Your task to perform on an android device: open app "Duolingo: language lessons" (install if not already installed) and enter user name: "omens@gmail.com" and password: "casks" Image 0: 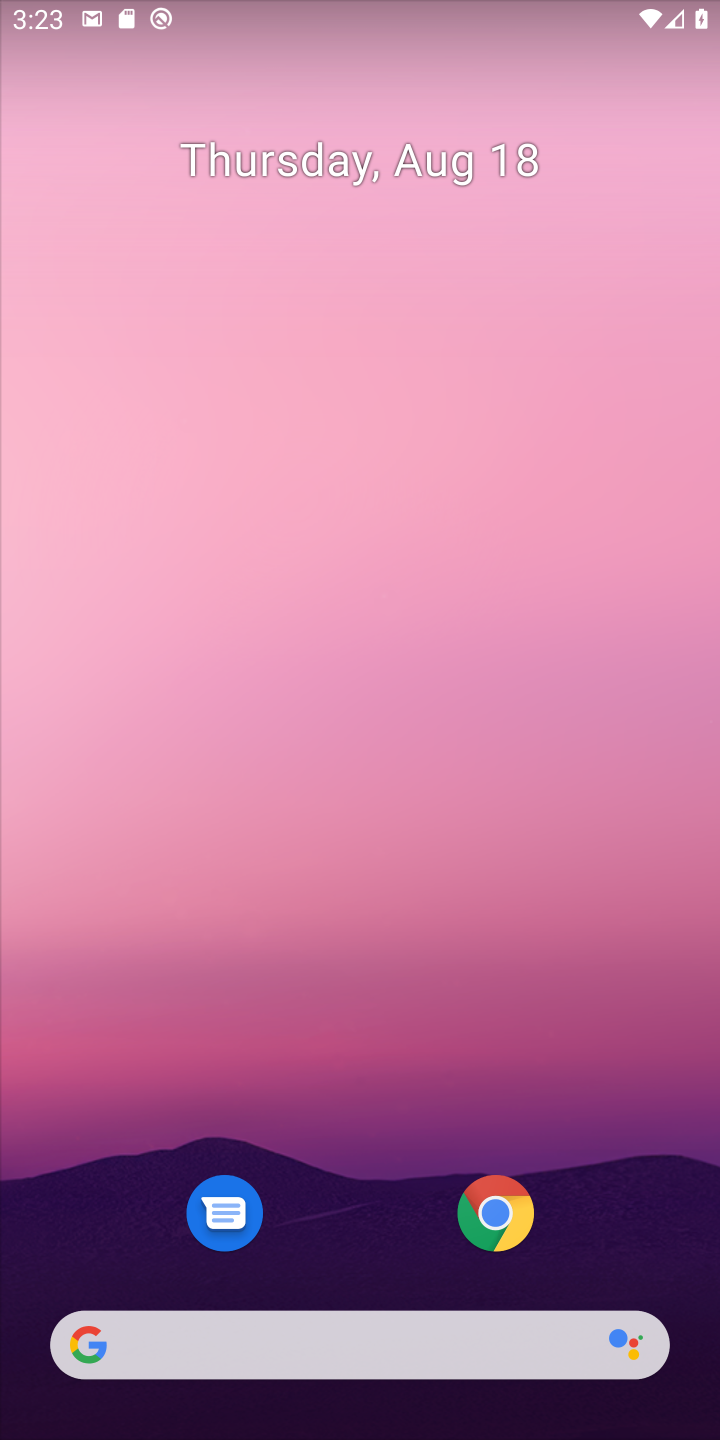
Step 0: drag from (648, 1218) to (606, 43)
Your task to perform on an android device: open app "Duolingo: language lessons" (install if not already installed) and enter user name: "omens@gmail.com" and password: "casks" Image 1: 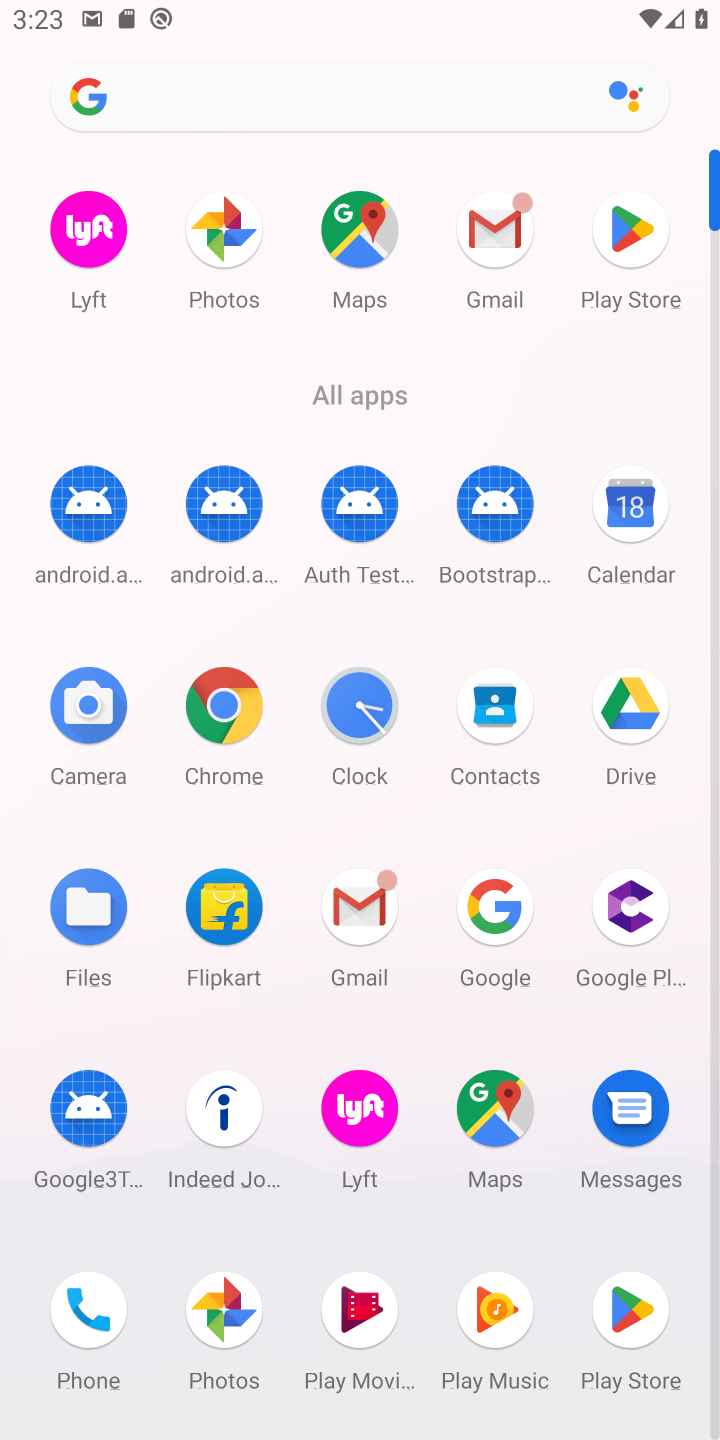
Step 1: click (634, 1308)
Your task to perform on an android device: open app "Duolingo: language lessons" (install if not already installed) and enter user name: "omens@gmail.com" and password: "casks" Image 2: 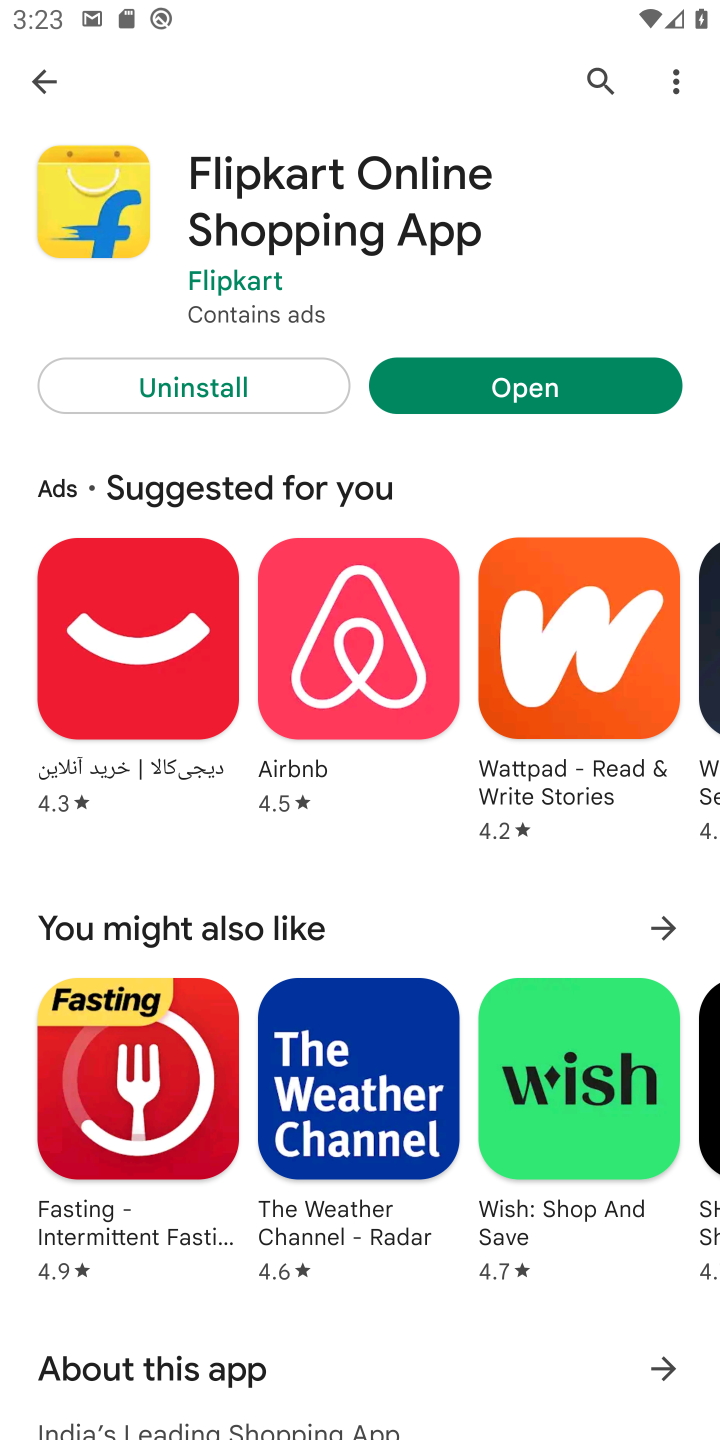
Step 2: click (596, 62)
Your task to perform on an android device: open app "Duolingo: language lessons" (install if not already installed) and enter user name: "omens@gmail.com" and password: "casks" Image 3: 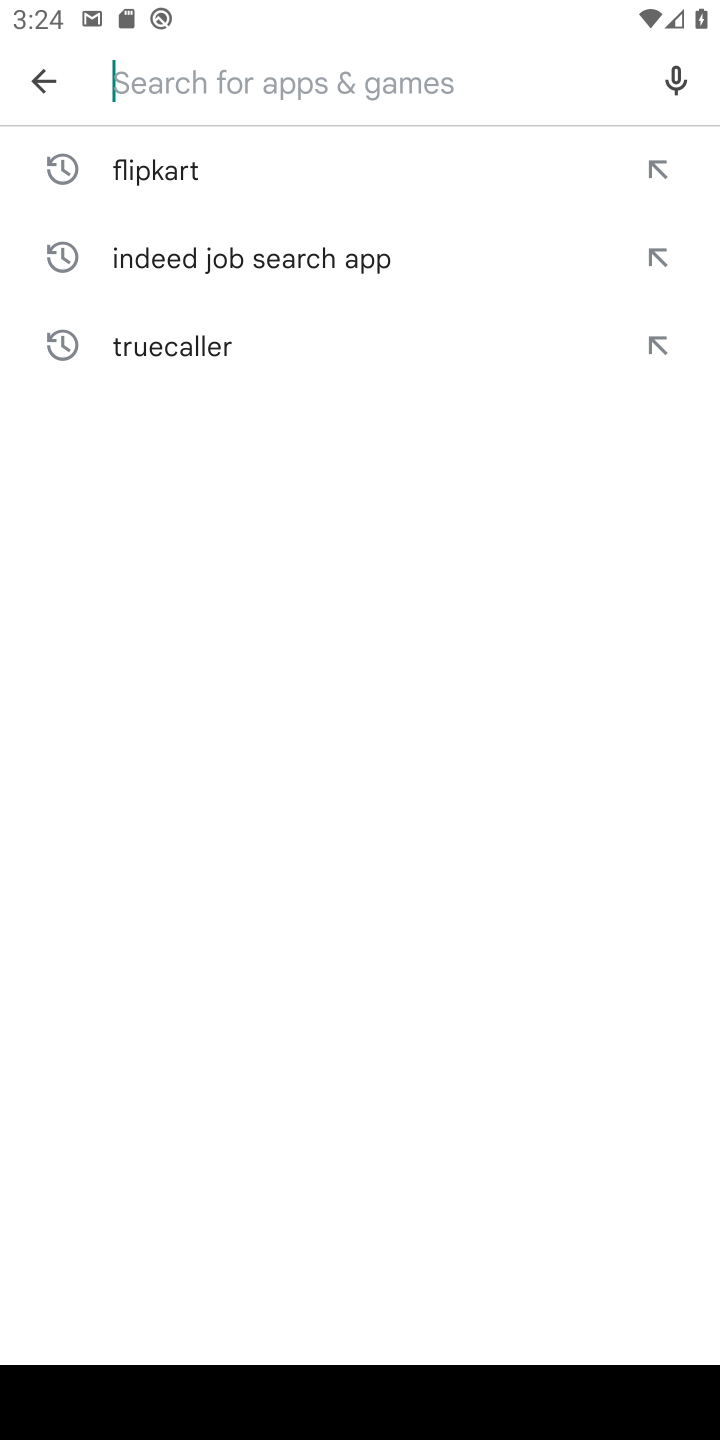
Step 3: type "Duolingo"
Your task to perform on an android device: open app "Duolingo: language lessons" (install if not already installed) and enter user name: "omens@gmail.com" and password: "casks" Image 4: 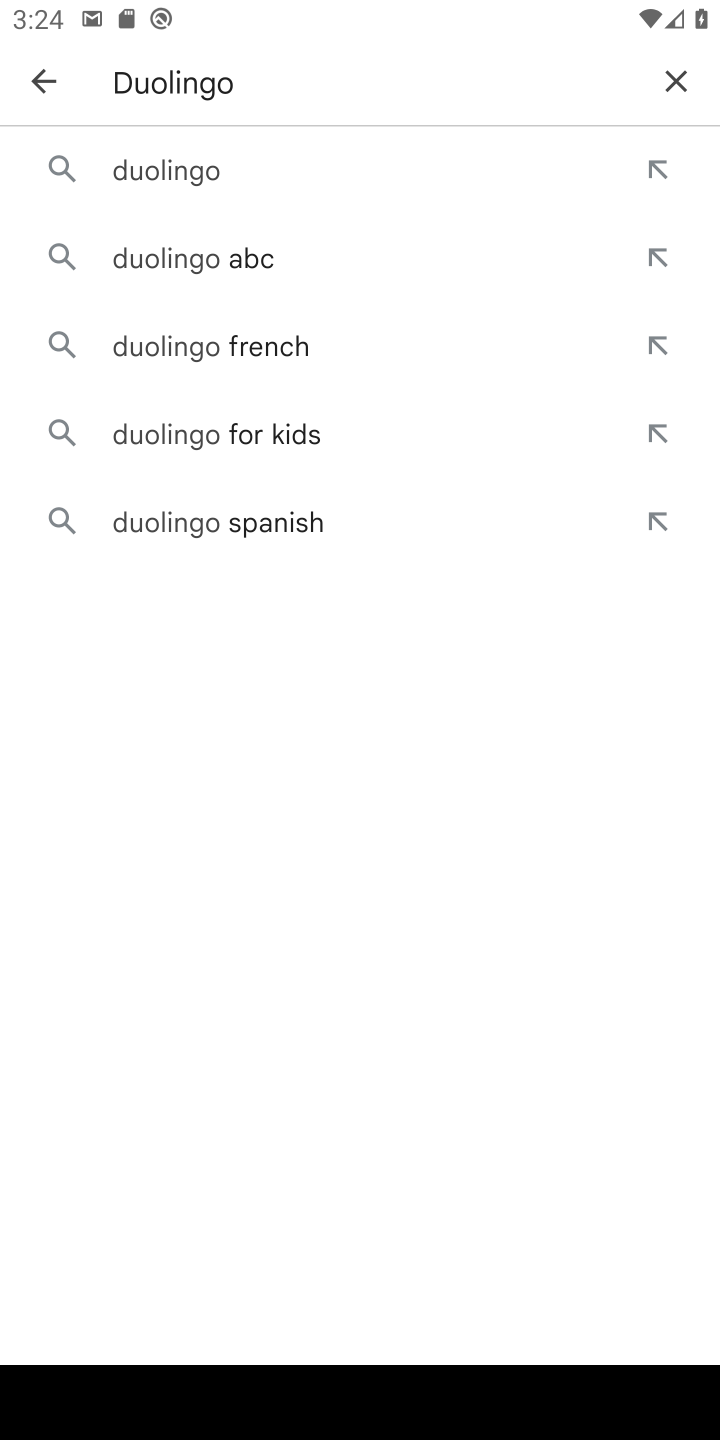
Step 4: click (199, 165)
Your task to perform on an android device: open app "Duolingo: language lessons" (install if not already installed) and enter user name: "omens@gmail.com" and password: "casks" Image 5: 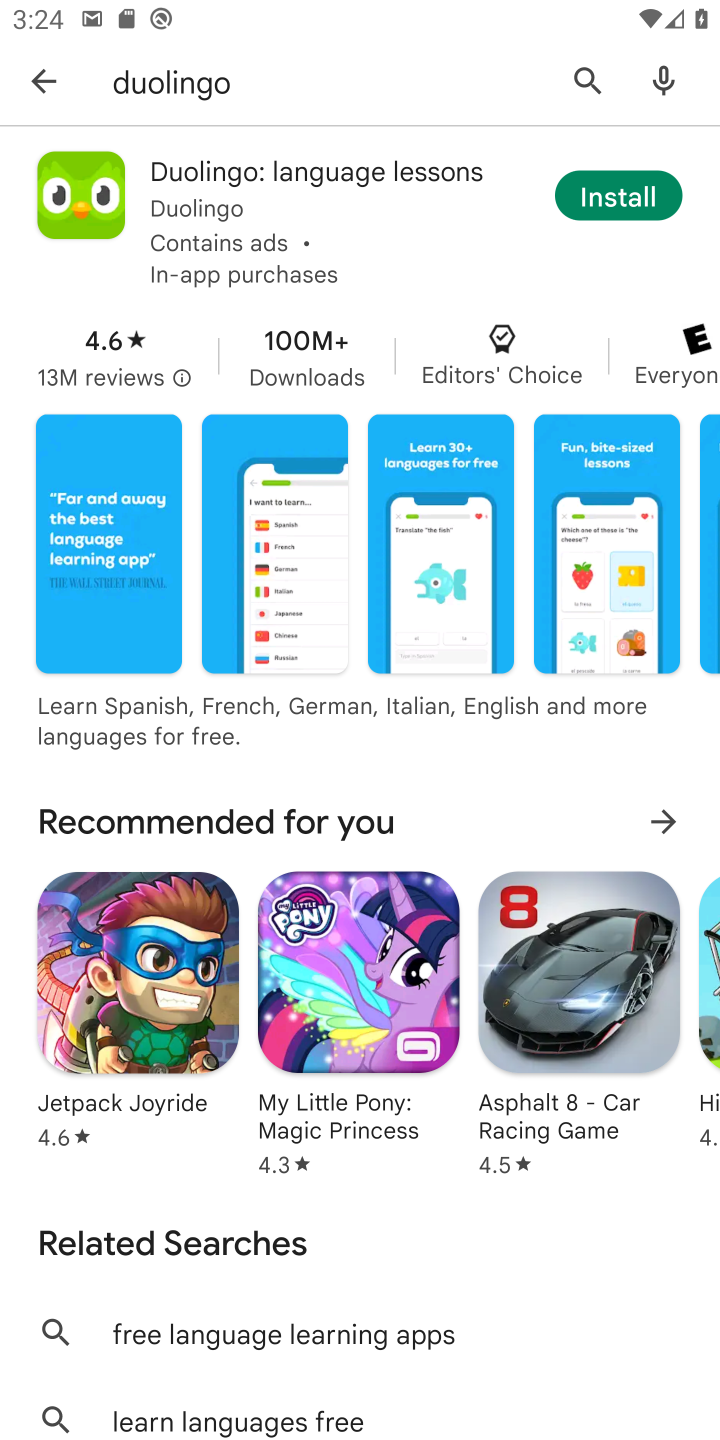
Step 5: click (623, 191)
Your task to perform on an android device: open app "Duolingo: language lessons" (install if not already installed) and enter user name: "omens@gmail.com" and password: "casks" Image 6: 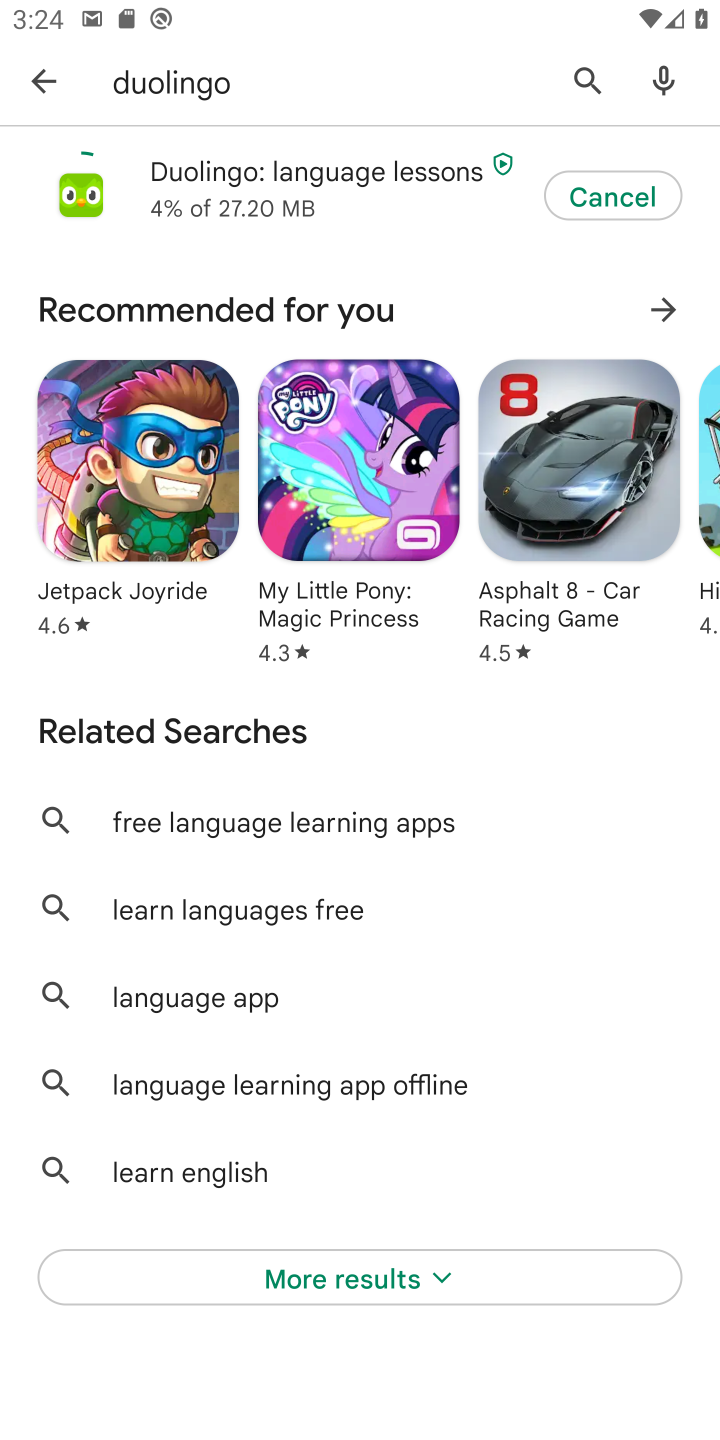
Step 6: click (169, 192)
Your task to perform on an android device: open app "Duolingo: language lessons" (install if not already installed) and enter user name: "omens@gmail.com" and password: "casks" Image 7: 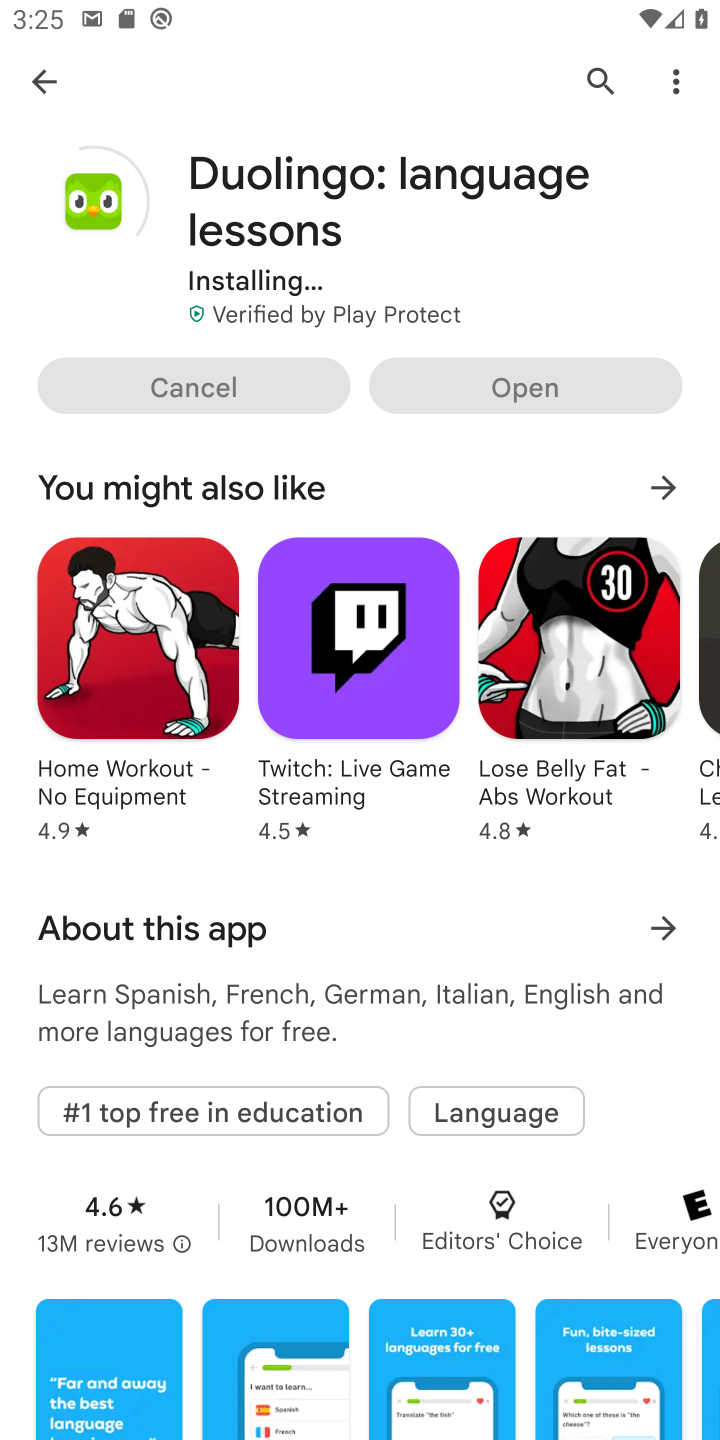
Step 7: drag from (390, 254) to (380, 418)
Your task to perform on an android device: open app "Duolingo: language lessons" (install if not already installed) and enter user name: "omens@gmail.com" and password: "casks" Image 8: 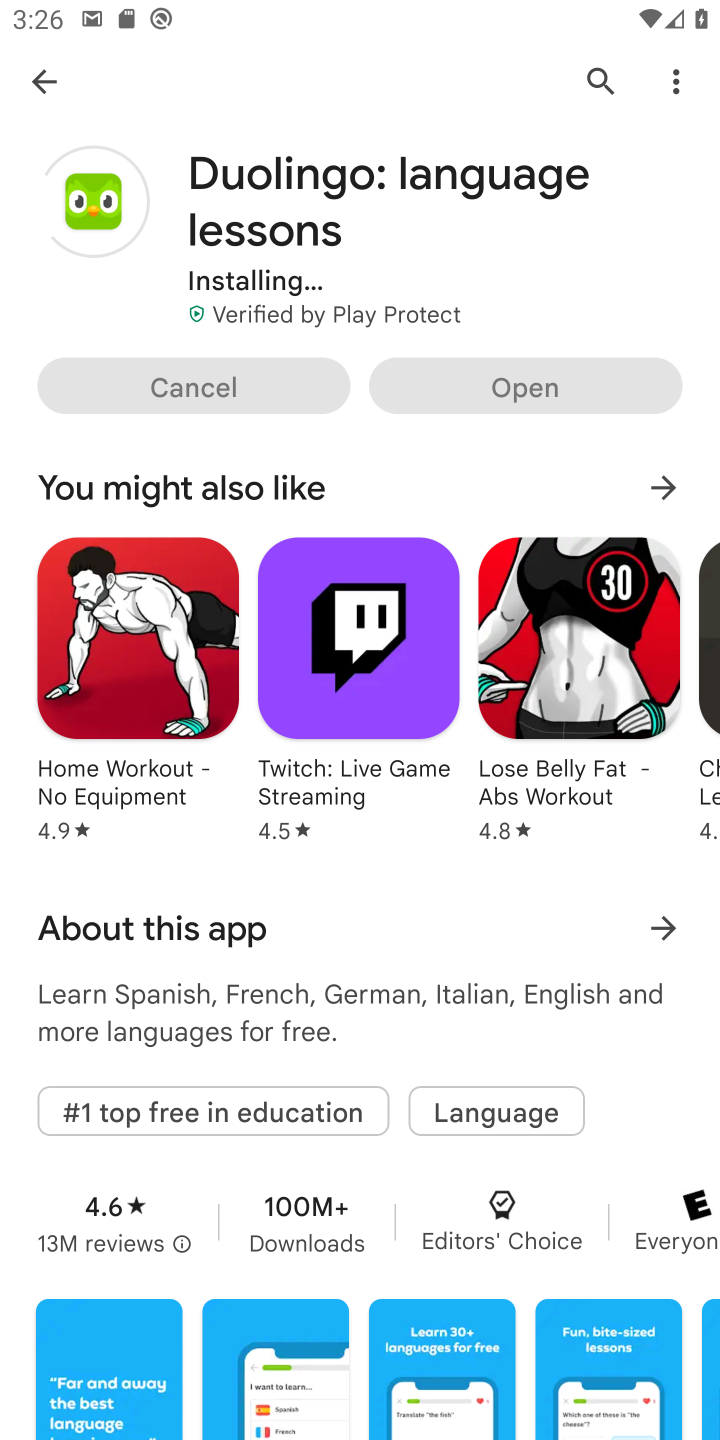
Step 8: drag from (417, 281) to (400, 505)
Your task to perform on an android device: open app "Duolingo: language lessons" (install if not already installed) and enter user name: "omens@gmail.com" and password: "casks" Image 9: 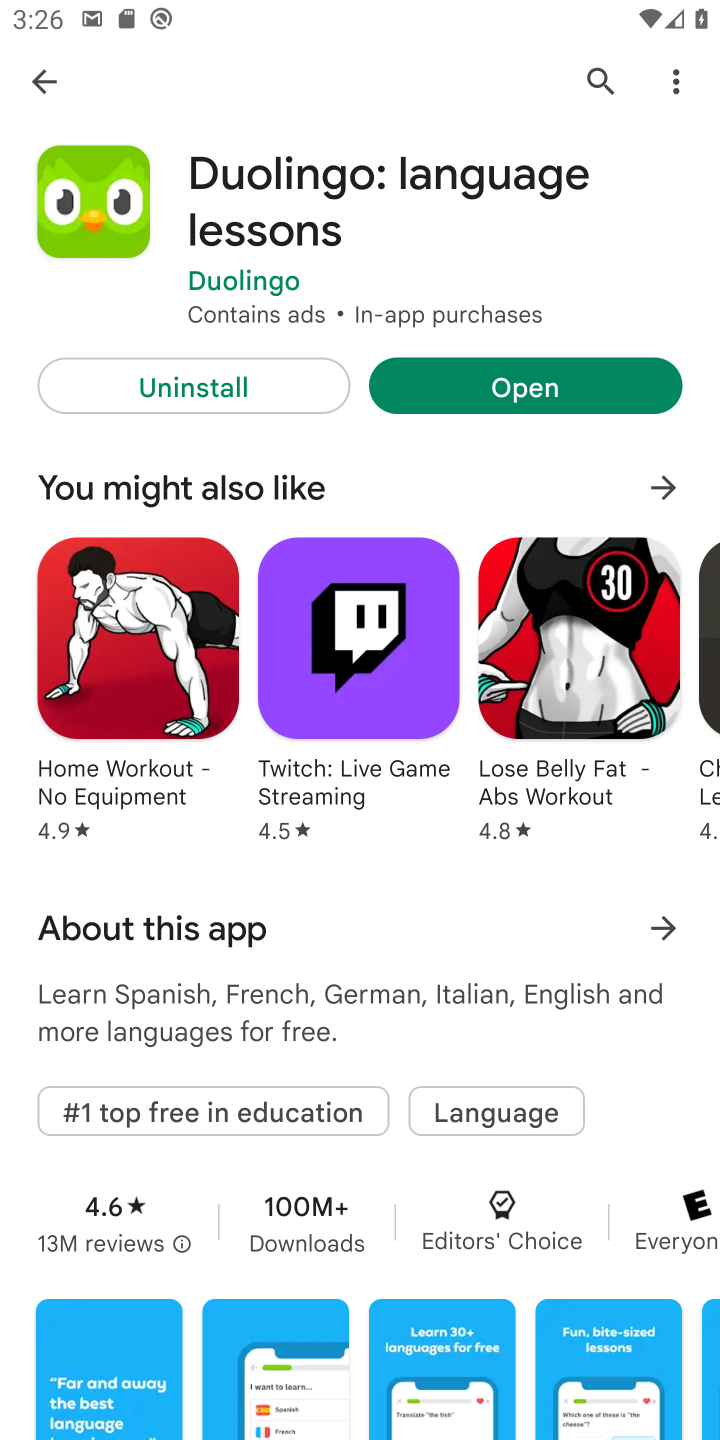
Step 9: click (538, 376)
Your task to perform on an android device: open app "Duolingo: language lessons" (install if not already installed) and enter user name: "omens@gmail.com" and password: "casks" Image 10: 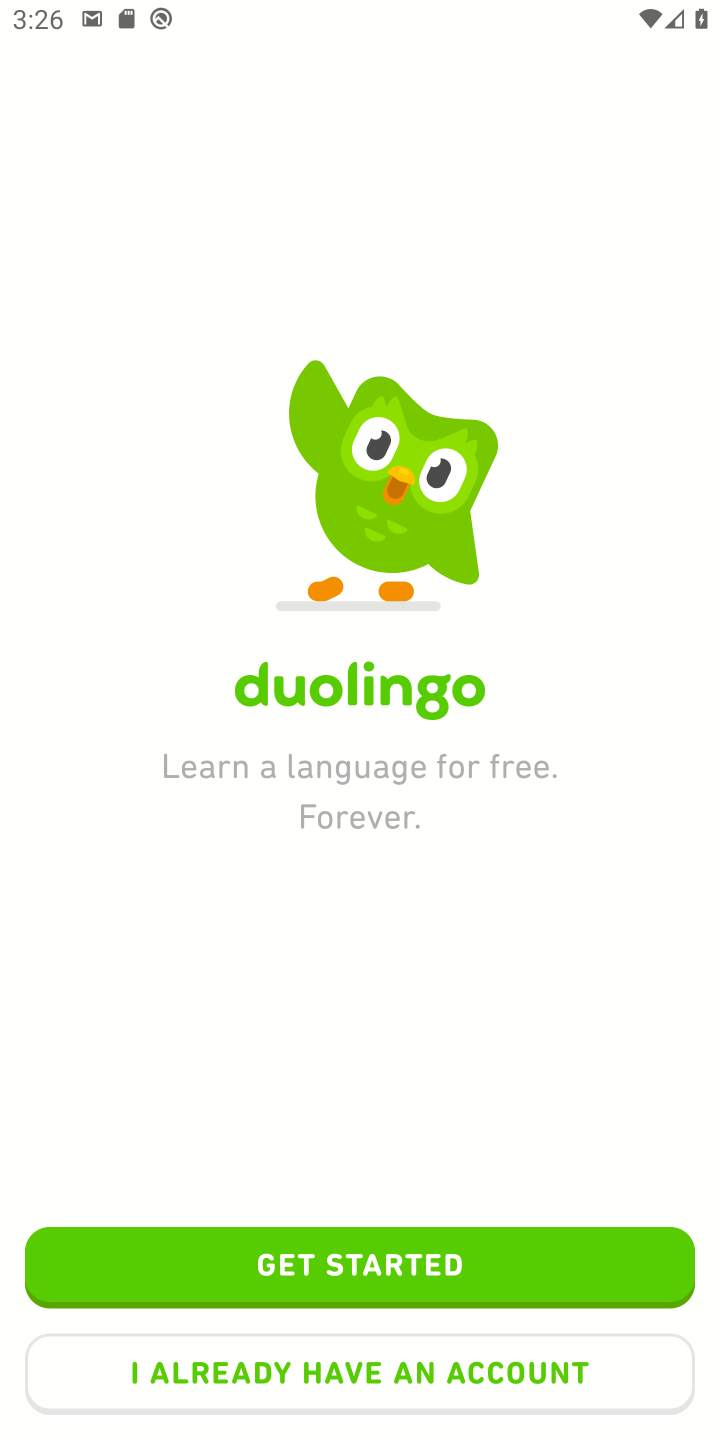
Step 10: click (313, 1366)
Your task to perform on an android device: open app "Duolingo: language lessons" (install if not already installed) and enter user name: "omens@gmail.com" and password: "casks" Image 11: 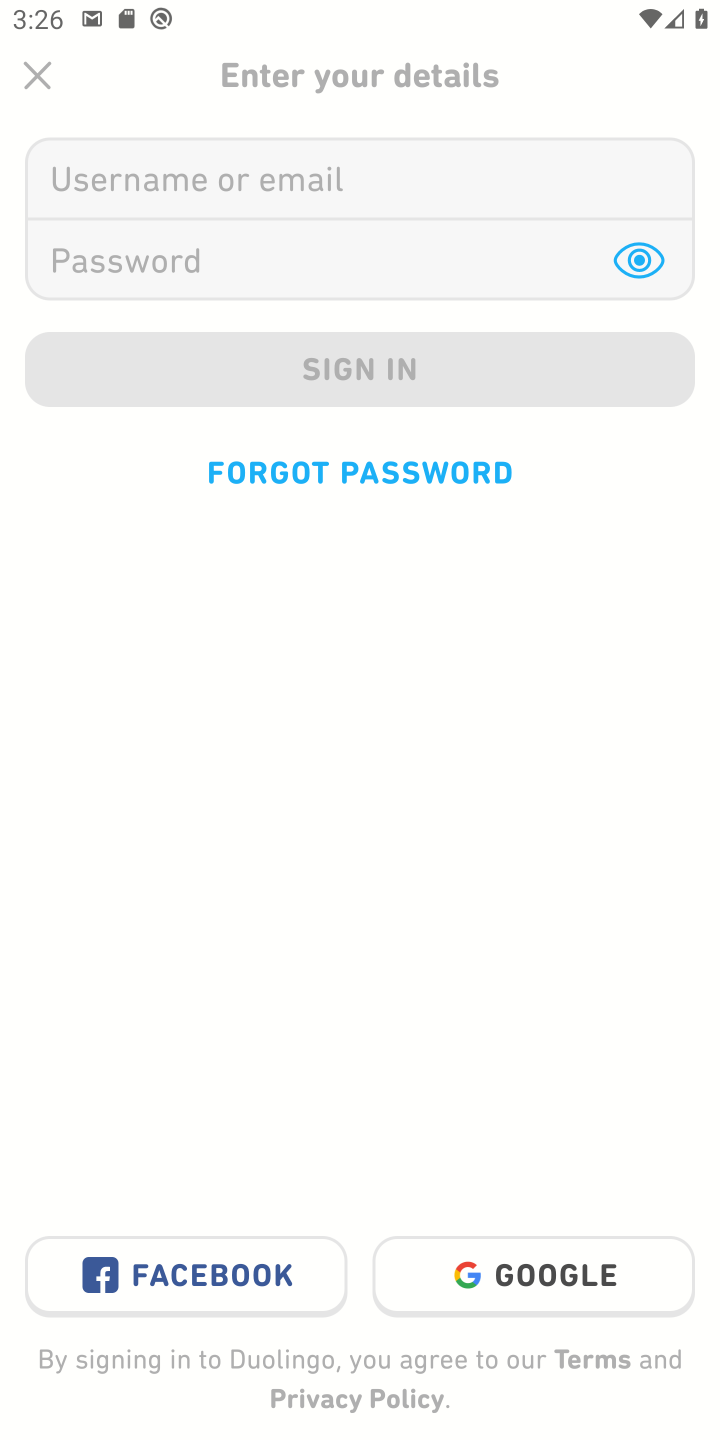
Step 11: click (258, 191)
Your task to perform on an android device: open app "Duolingo: language lessons" (install if not already installed) and enter user name: "omens@gmail.com" and password: "casks" Image 12: 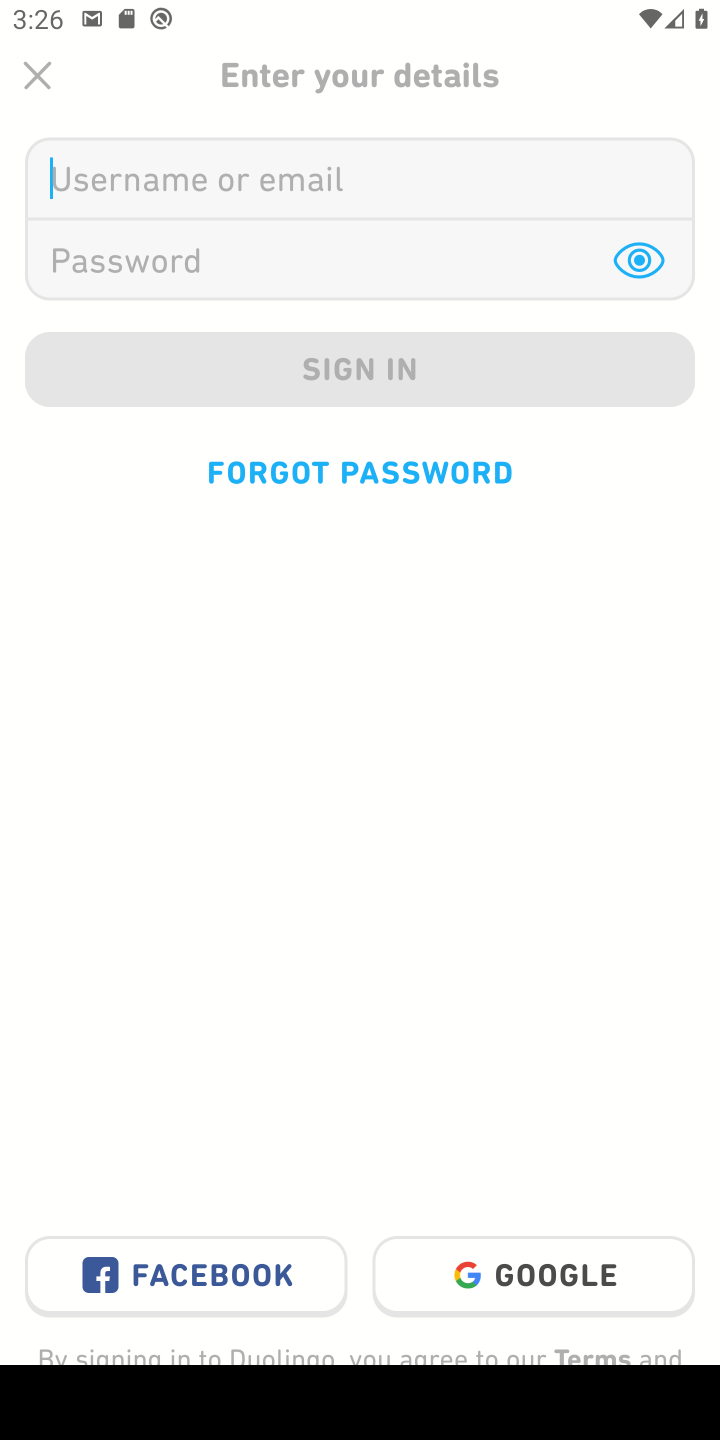
Step 12: type "omens@gmail.com"
Your task to perform on an android device: open app "Duolingo: language lessons" (install if not already installed) and enter user name: "omens@gmail.com" and password: "casks" Image 13: 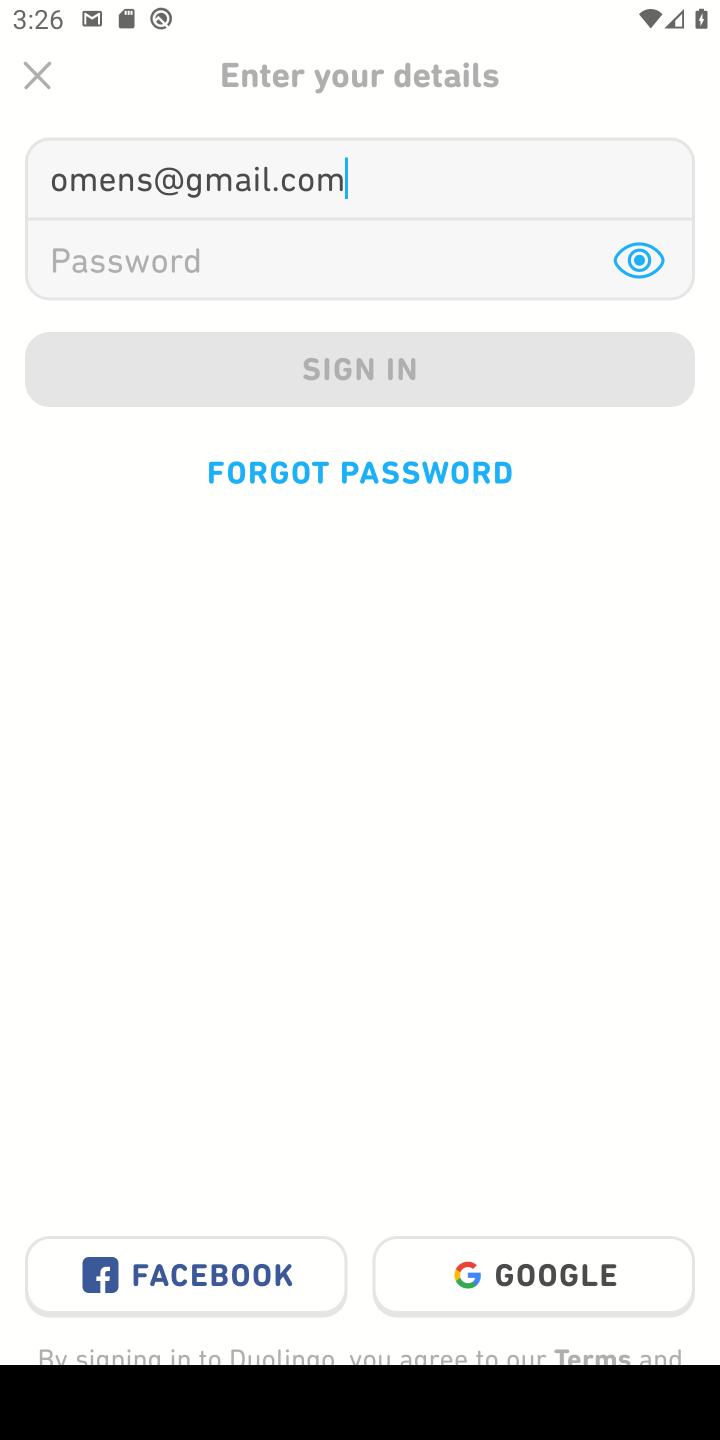
Step 13: click (162, 265)
Your task to perform on an android device: open app "Duolingo: language lessons" (install if not already installed) and enter user name: "omens@gmail.com" and password: "casks" Image 14: 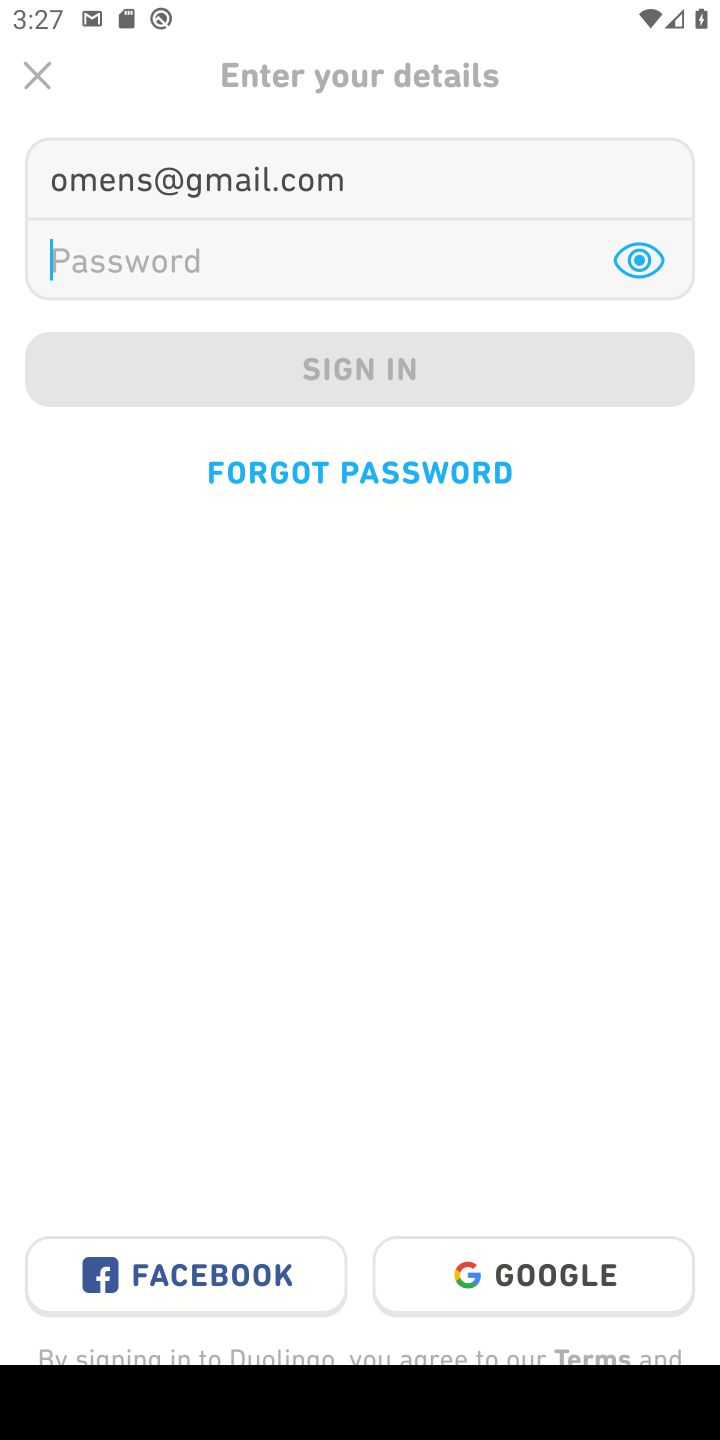
Step 14: type "casks"
Your task to perform on an android device: open app "Duolingo: language lessons" (install if not already installed) and enter user name: "omens@gmail.com" and password: "casks" Image 15: 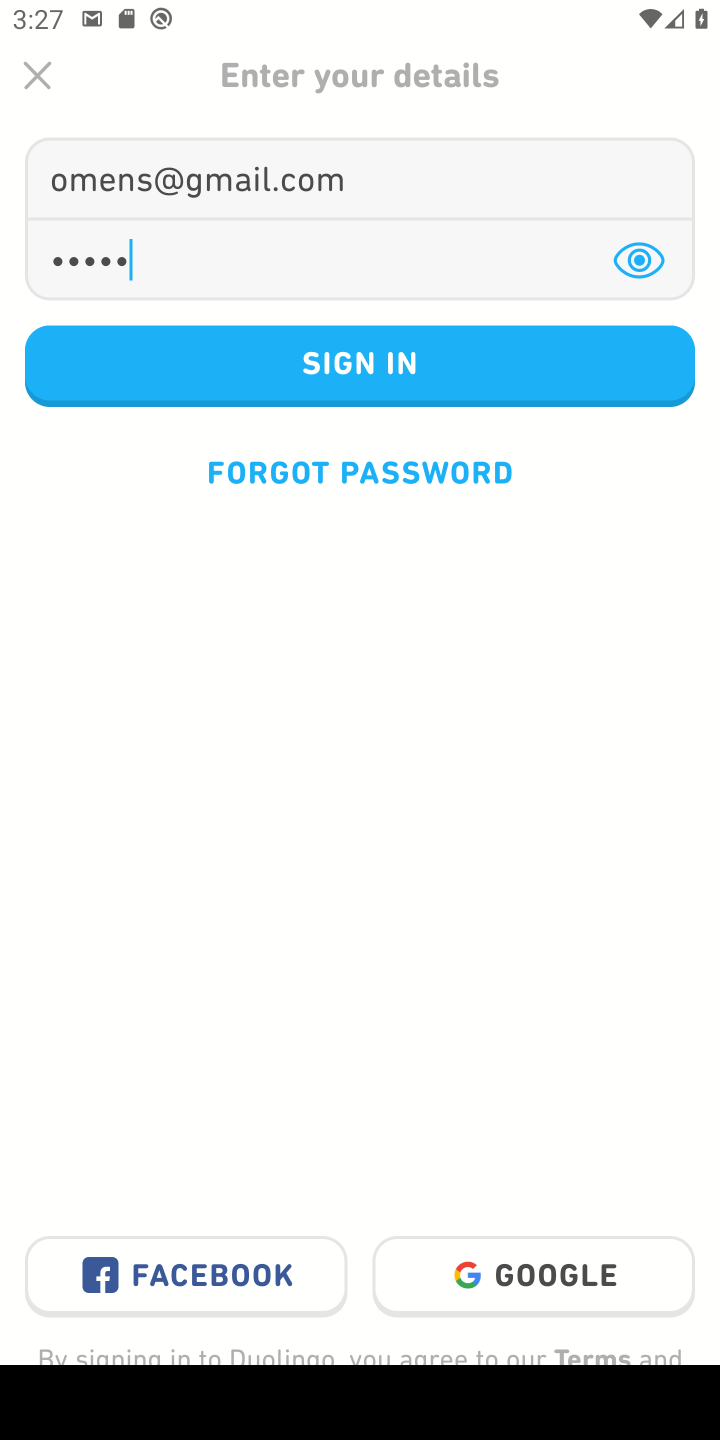
Step 15: task complete